Your task to perform on an android device: Open the calendar app, open the side menu, and click the "Day" option Image 0: 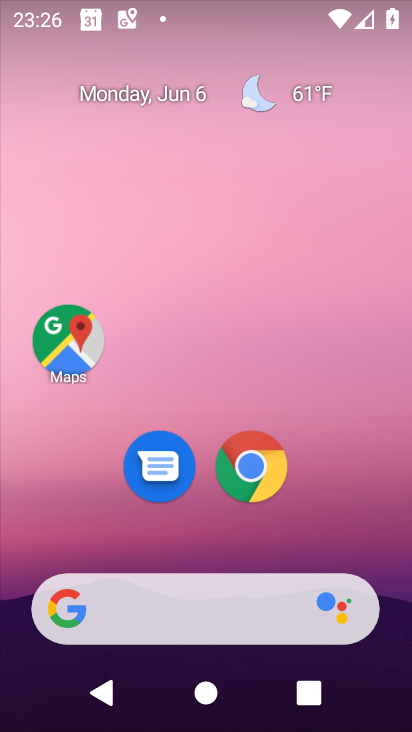
Step 0: press home button
Your task to perform on an android device: Open the calendar app, open the side menu, and click the "Day" option Image 1: 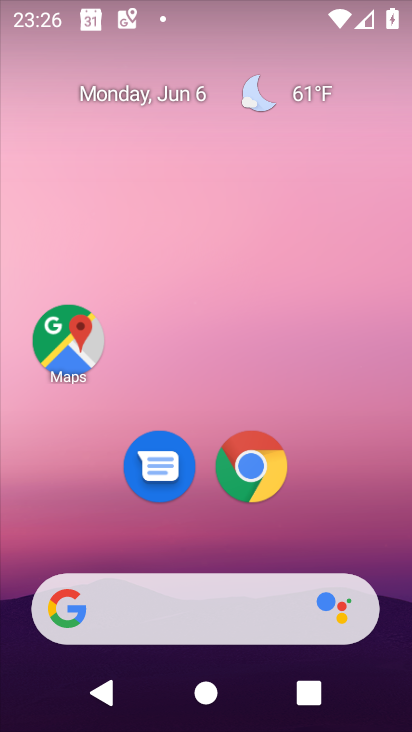
Step 1: drag from (270, 530) to (223, 47)
Your task to perform on an android device: Open the calendar app, open the side menu, and click the "Day" option Image 2: 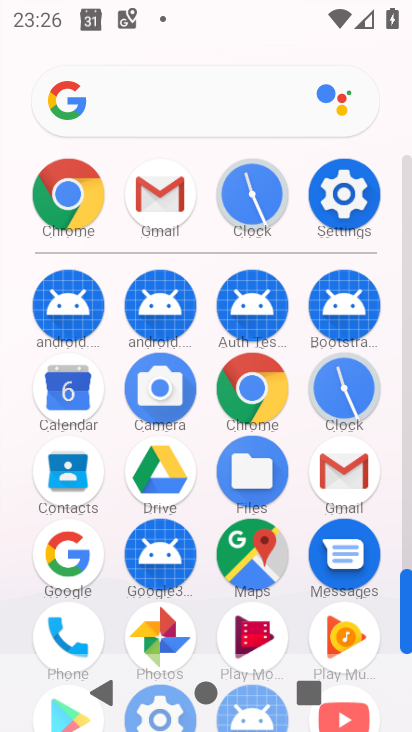
Step 2: click (56, 398)
Your task to perform on an android device: Open the calendar app, open the side menu, and click the "Day" option Image 3: 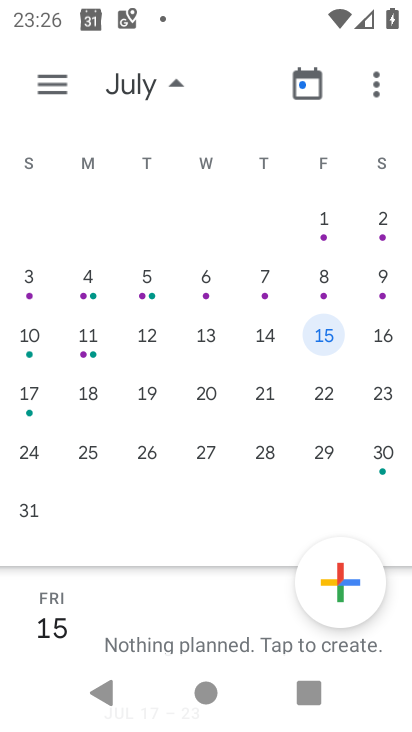
Step 3: click (58, 93)
Your task to perform on an android device: Open the calendar app, open the side menu, and click the "Day" option Image 4: 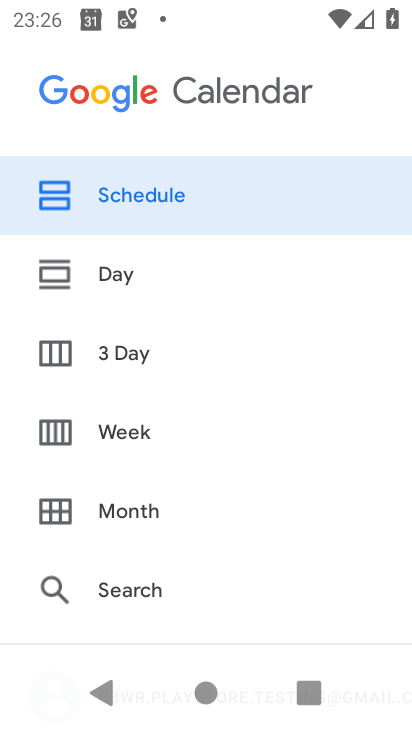
Step 4: click (95, 275)
Your task to perform on an android device: Open the calendar app, open the side menu, and click the "Day" option Image 5: 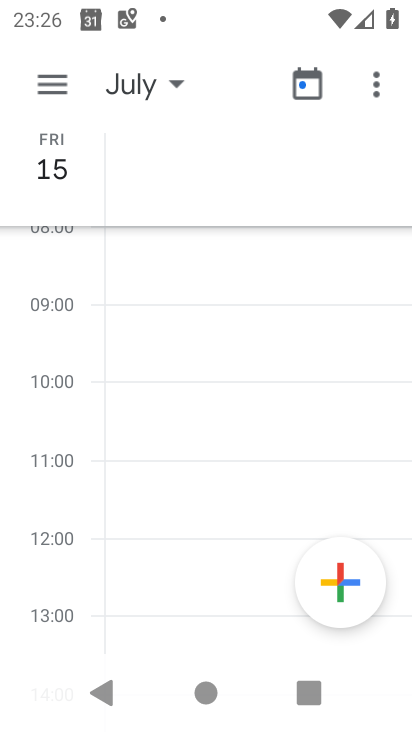
Step 5: task complete